Your task to perform on an android device: turn on airplane mode Image 0: 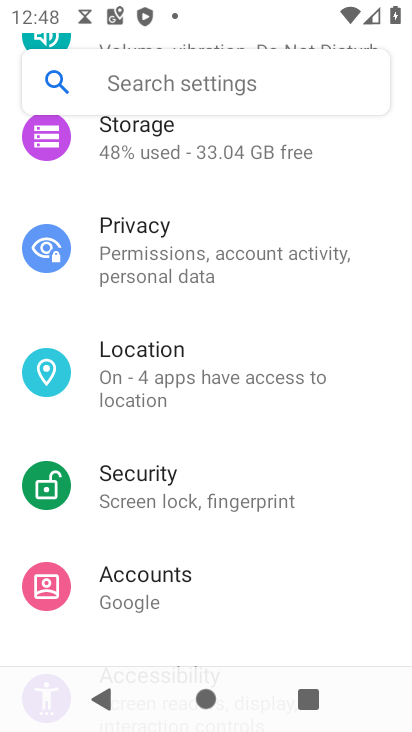
Step 0: press home button
Your task to perform on an android device: turn on airplane mode Image 1: 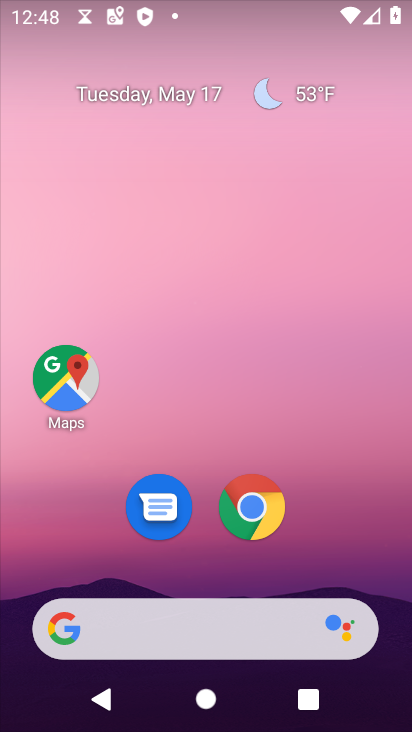
Step 1: drag from (205, 580) to (265, 86)
Your task to perform on an android device: turn on airplane mode Image 2: 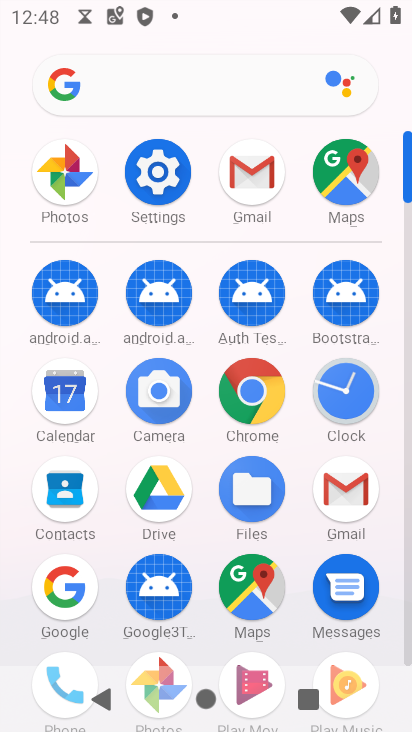
Step 2: click (157, 169)
Your task to perform on an android device: turn on airplane mode Image 3: 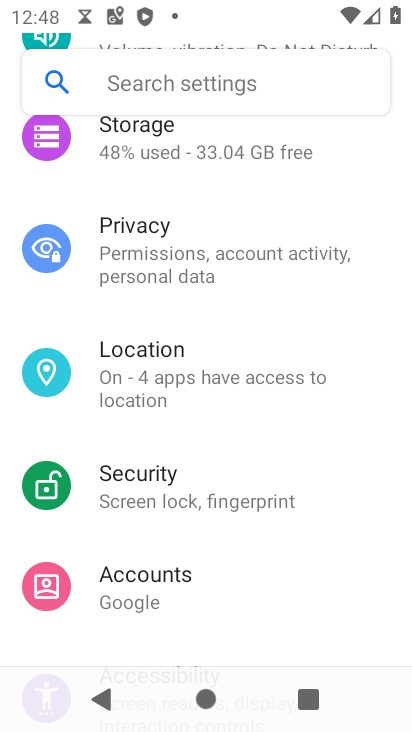
Step 3: drag from (264, 320) to (313, 604)
Your task to perform on an android device: turn on airplane mode Image 4: 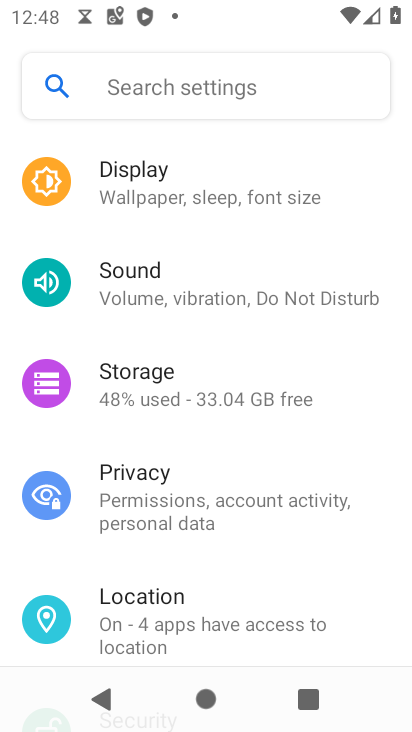
Step 4: drag from (281, 313) to (312, 474)
Your task to perform on an android device: turn on airplane mode Image 5: 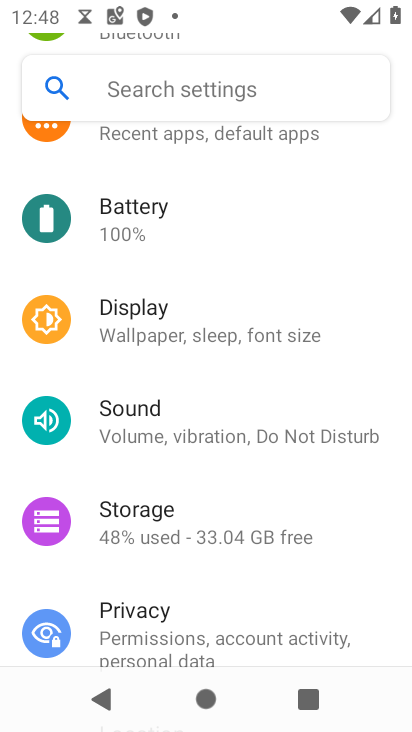
Step 5: drag from (216, 257) to (236, 514)
Your task to perform on an android device: turn on airplane mode Image 6: 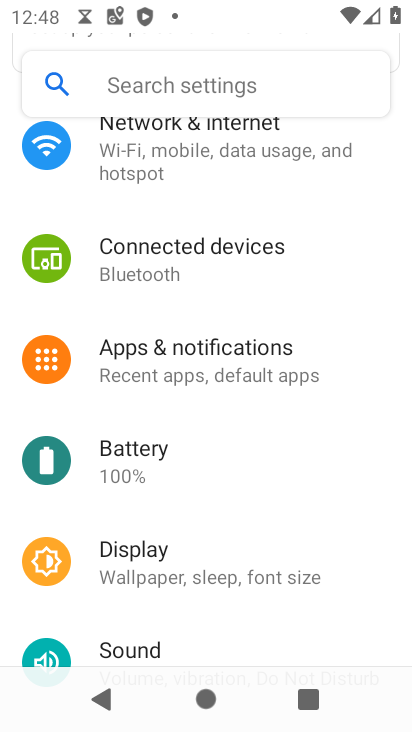
Step 6: click (289, 142)
Your task to perform on an android device: turn on airplane mode Image 7: 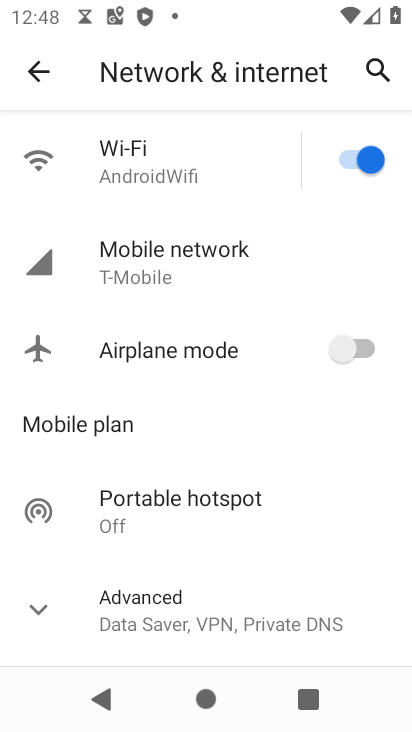
Step 7: click (336, 351)
Your task to perform on an android device: turn on airplane mode Image 8: 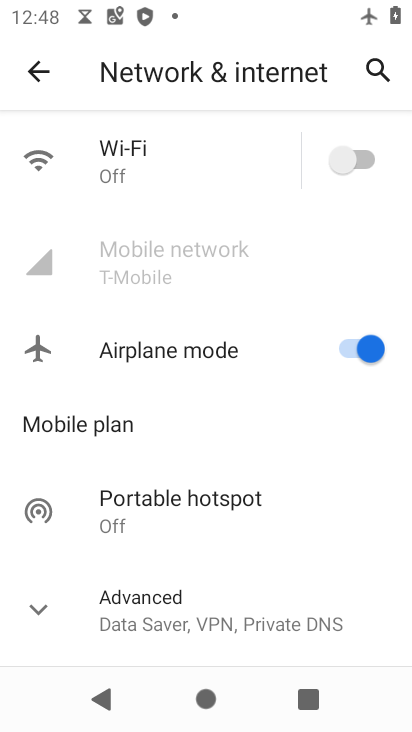
Step 8: task complete